Your task to perform on an android device: turn off smart reply in the gmail app Image 0: 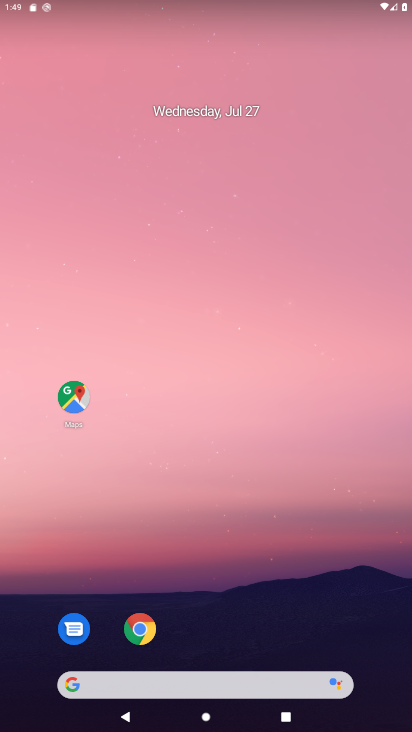
Step 0: drag from (280, 649) to (218, 63)
Your task to perform on an android device: turn off smart reply in the gmail app Image 1: 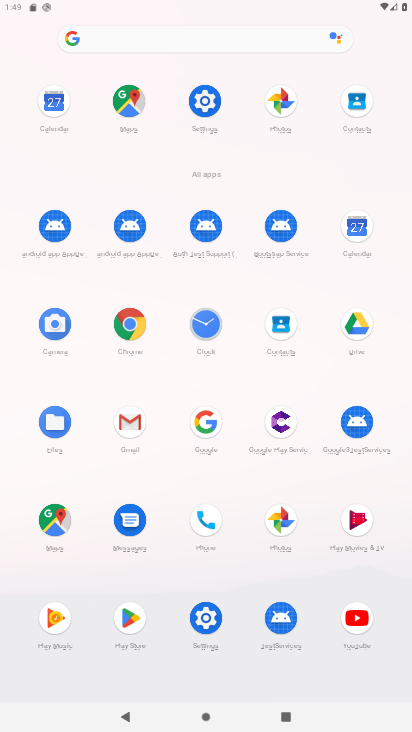
Step 1: click (131, 432)
Your task to perform on an android device: turn off smart reply in the gmail app Image 2: 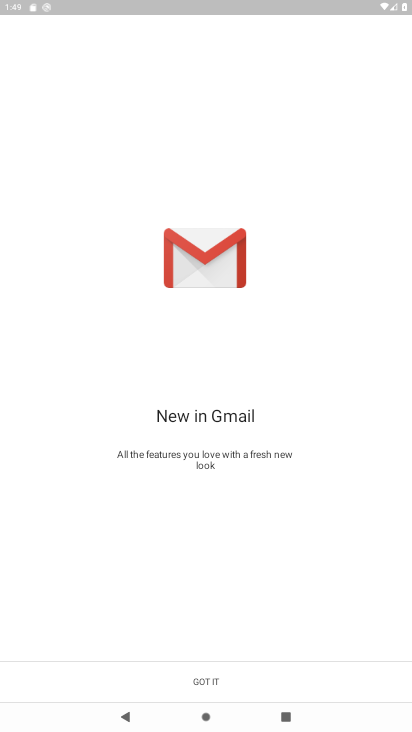
Step 2: click (250, 671)
Your task to perform on an android device: turn off smart reply in the gmail app Image 3: 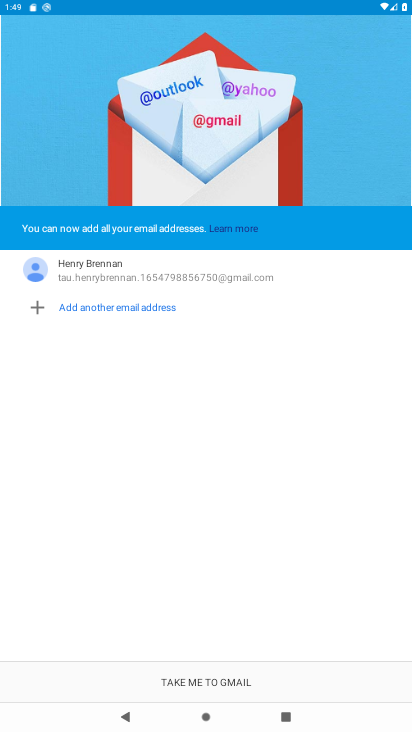
Step 3: click (250, 671)
Your task to perform on an android device: turn off smart reply in the gmail app Image 4: 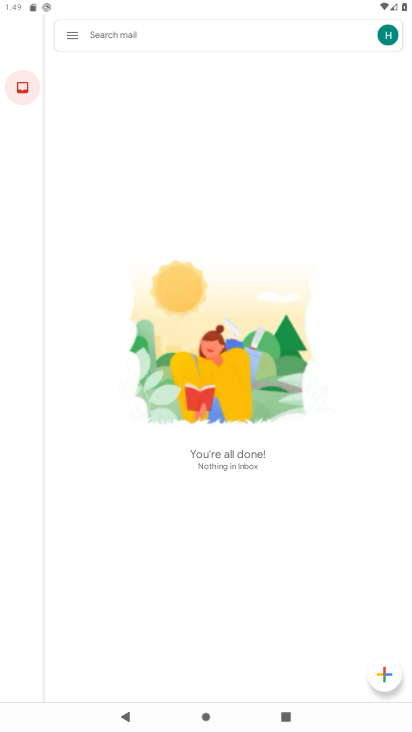
Step 4: click (70, 43)
Your task to perform on an android device: turn off smart reply in the gmail app Image 5: 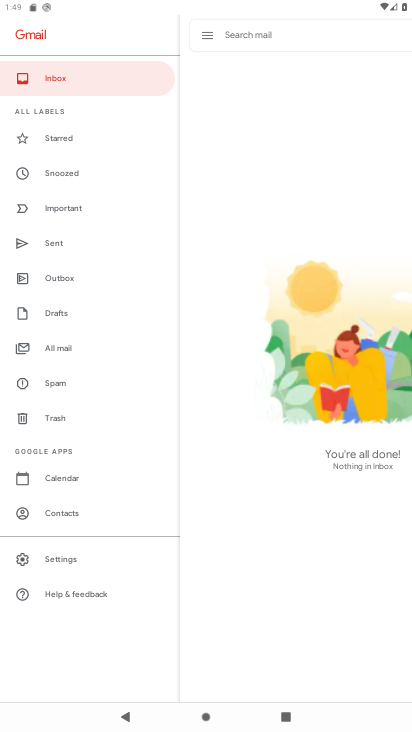
Step 5: click (70, 567)
Your task to perform on an android device: turn off smart reply in the gmail app Image 6: 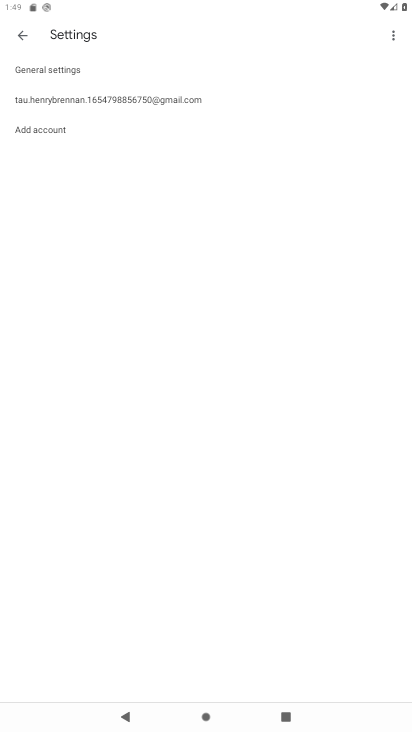
Step 6: click (194, 110)
Your task to perform on an android device: turn off smart reply in the gmail app Image 7: 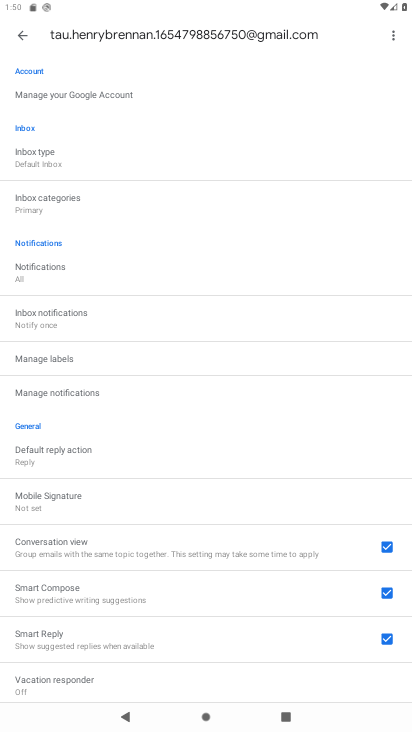
Step 7: click (391, 644)
Your task to perform on an android device: turn off smart reply in the gmail app Image 8: 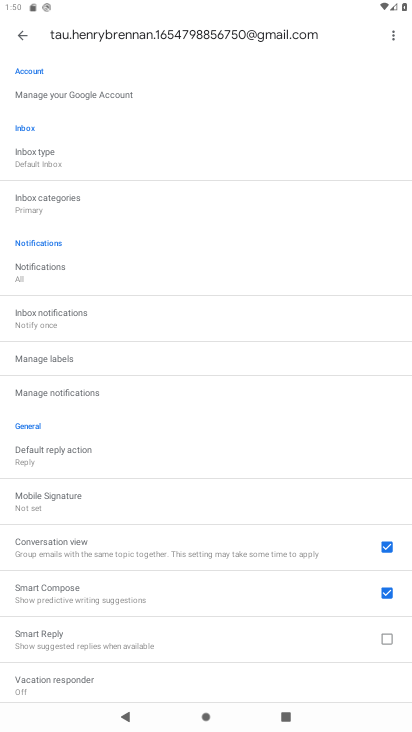
Step 8: task complete